Your task to perform on an android device: Clear the cart on newegg. Search for "alienware area 51" on newegg, select the first entry, add it to the cart, then select checkout. Image 0: 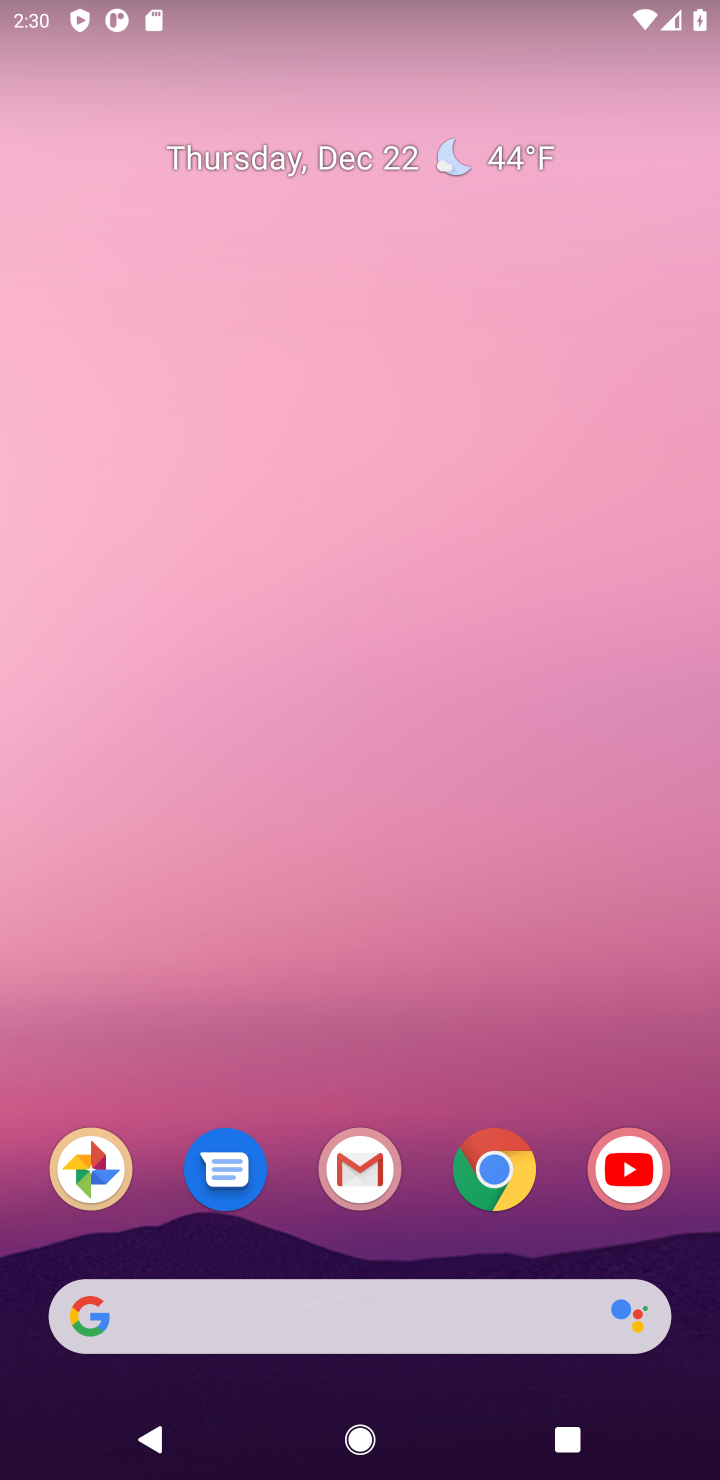
Step 0: click (488, 1175)
Your task to perform on an android device: Clear the cart on newegg. Search for "alienware area 51" on newegg, select the first entry, add it to the cart, then select checkout. Image 1: 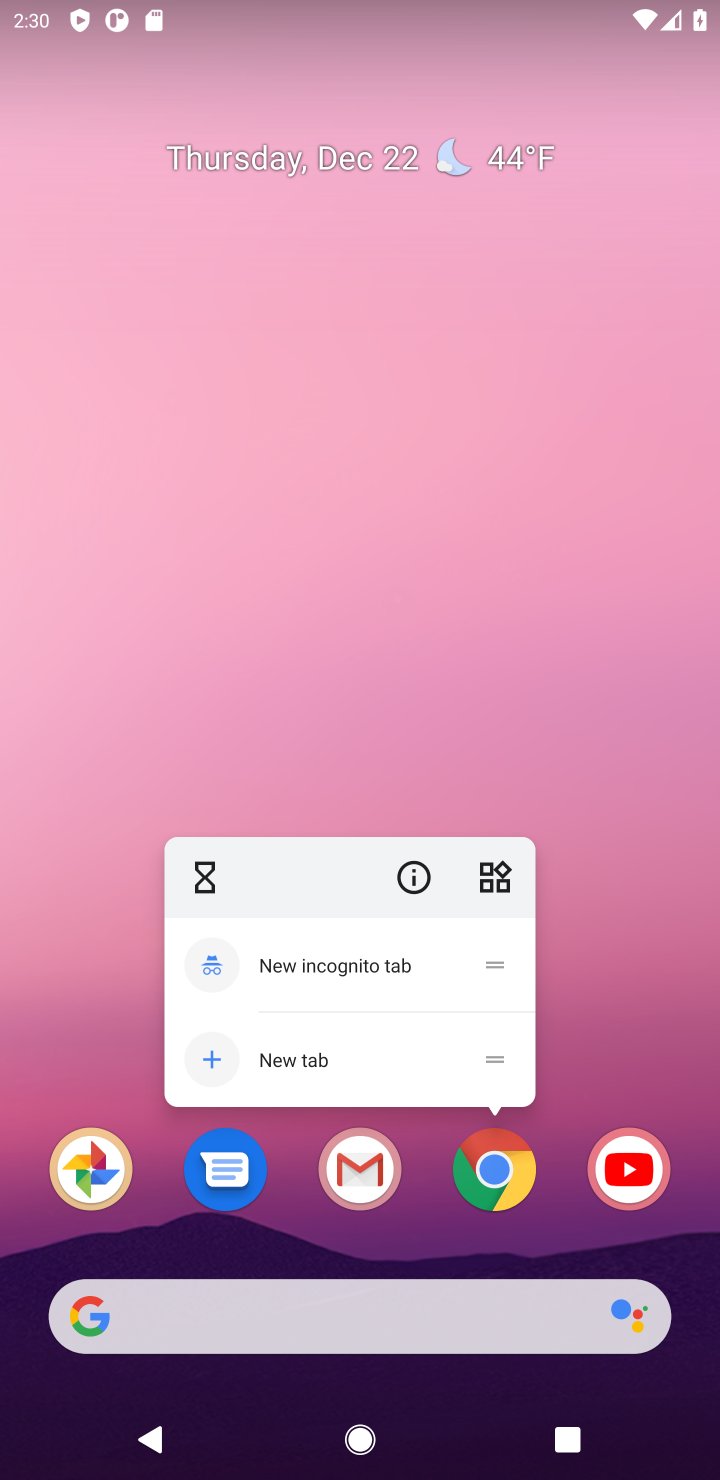
Step 1: click (488, 1175)
Your task to perform on an android device: Clear the cart on newegg. Search for "alienware area 51" on newegg, select the first entry, add it to the cart, then select checkout. Image 2: 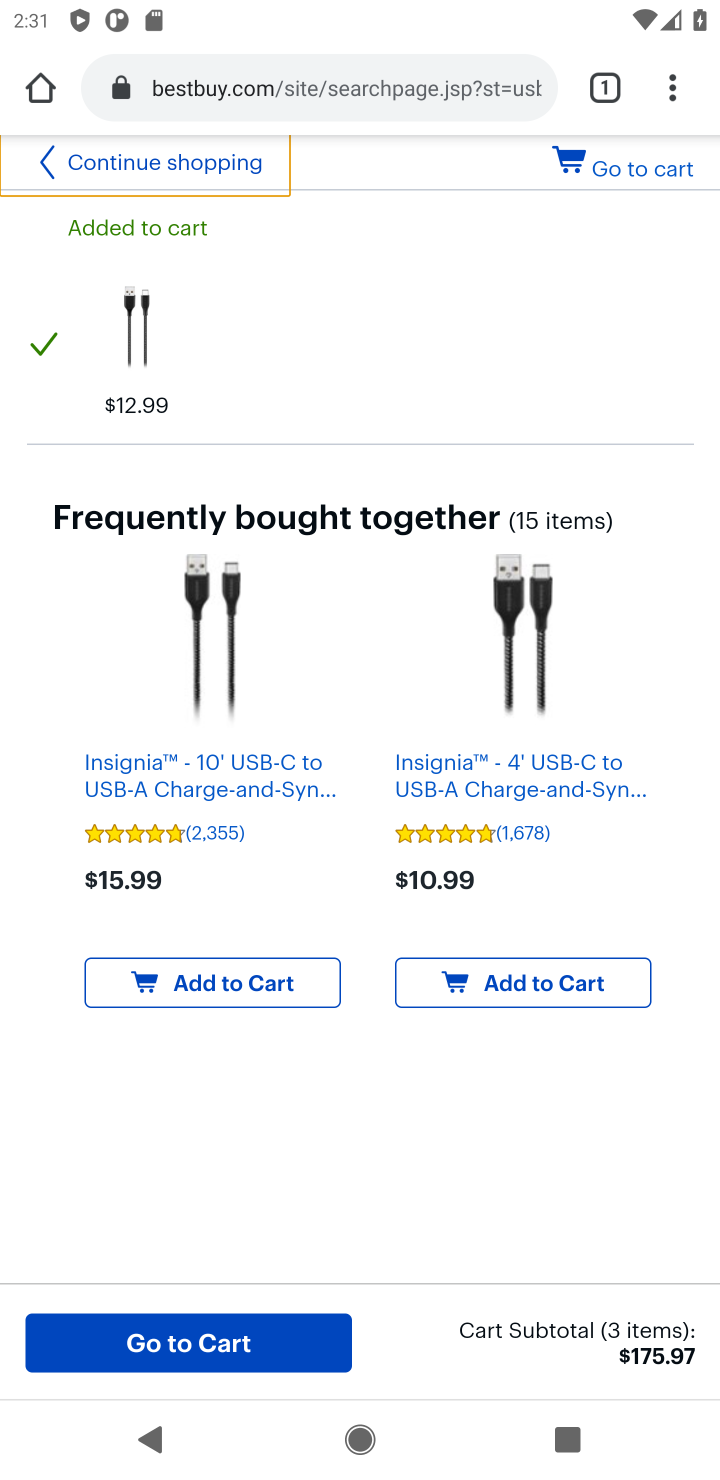
Step 2: click (294, 94)
Your task to perform on an android device: Clear the cart on newegg. Search for "alienware area 51" on newegg, select the first entry, add it to the cart, then select checkout. Image 3: 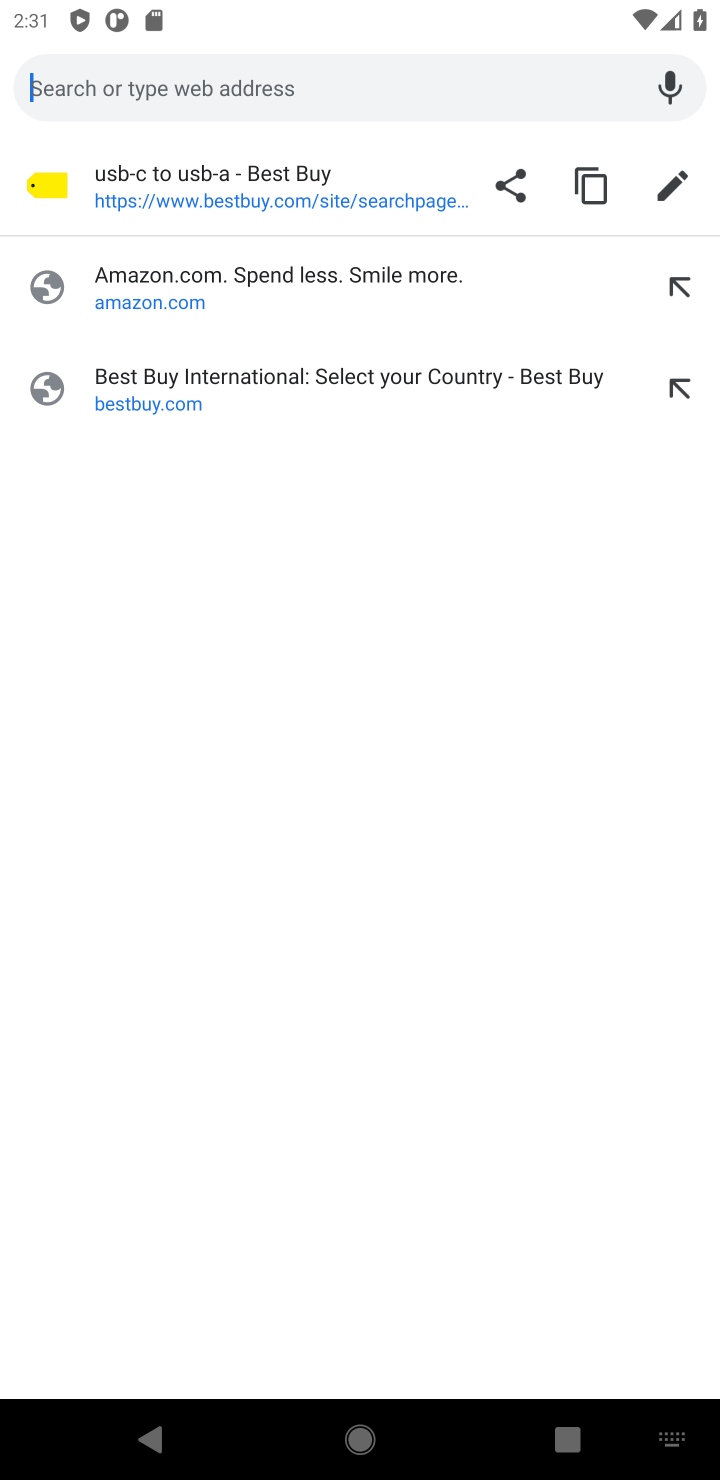
Step 3: click (116, 95)
Your task to perform on an android device: Clear the cart on newegg. Search for "alienware area 51" on newegg, select the first entry, add it to the cart, then select checkout. Image 4: 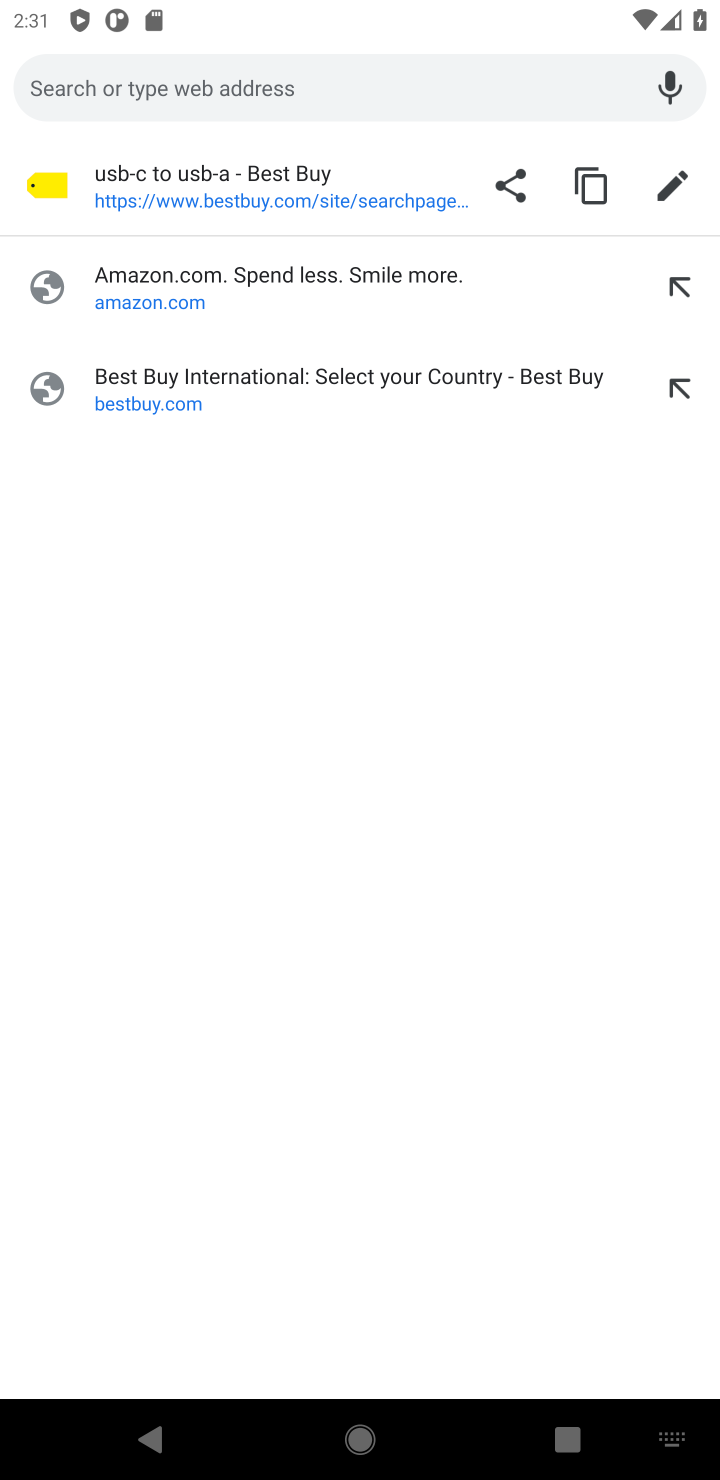
Step 4: type "newegg.com"
Your task to perform on an android device: Clear the cart on newegg. Search for "alienware area 51" on newegg, select the first entry, add it to the cart, then select checkout. Image 5: 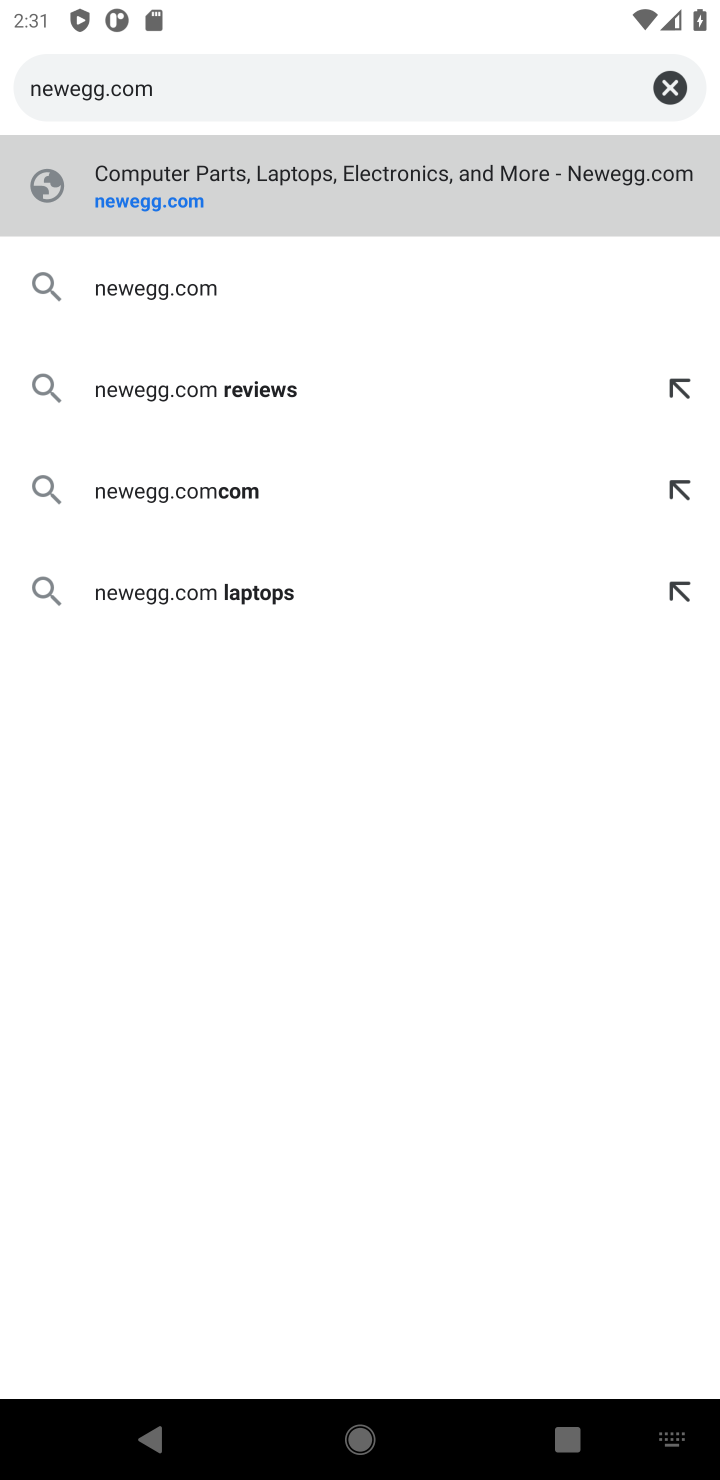
Step 5: click (137, 199)
Your task to perform on an android device: Clear the cart on newegg. Search for "alienware area 51" on newegg, select the first entry, add it to the cart, then select checkout. Image 6: 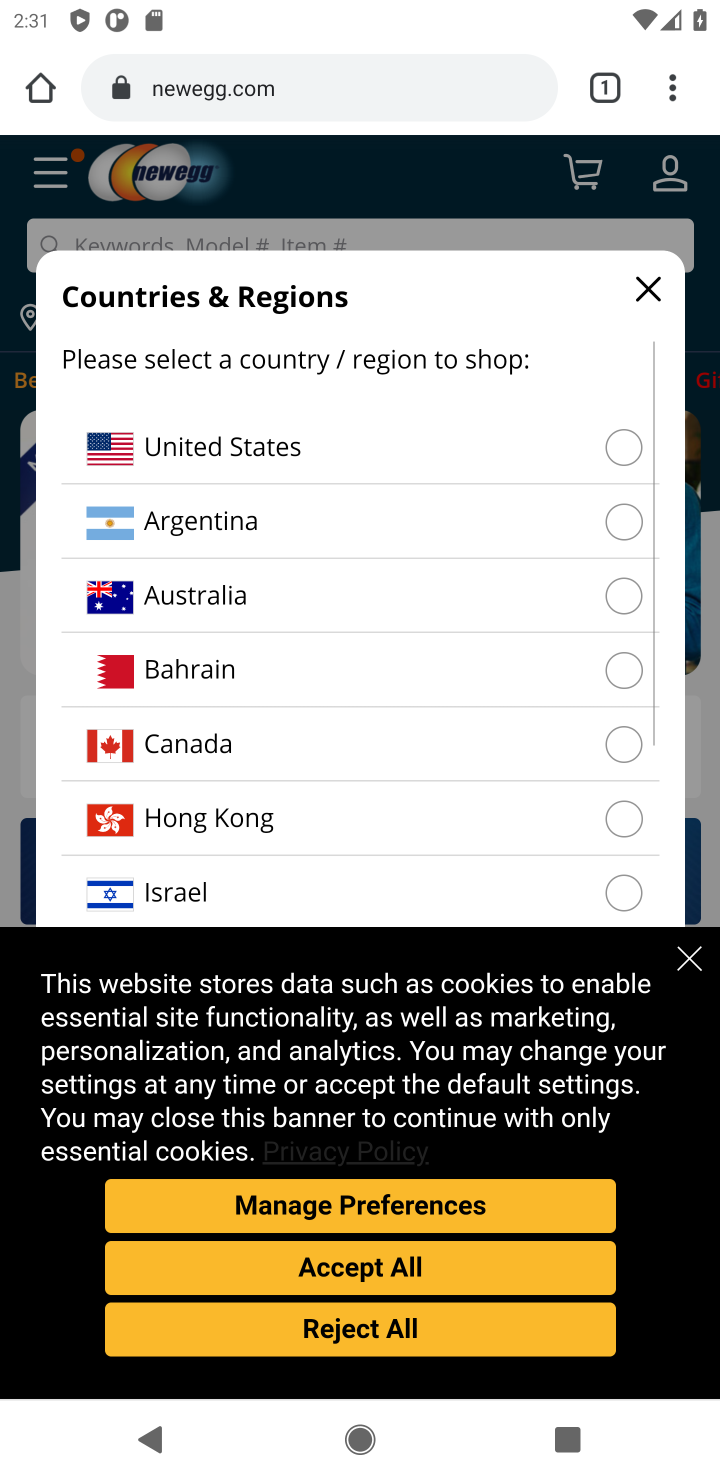
Step 6: click (685, 966)
Your task to perform on an android device: Clear the cart on newegg. Search for "alienware area 51" on newegg, select the first entry, add it to the cart, then select checkout. Image 7: 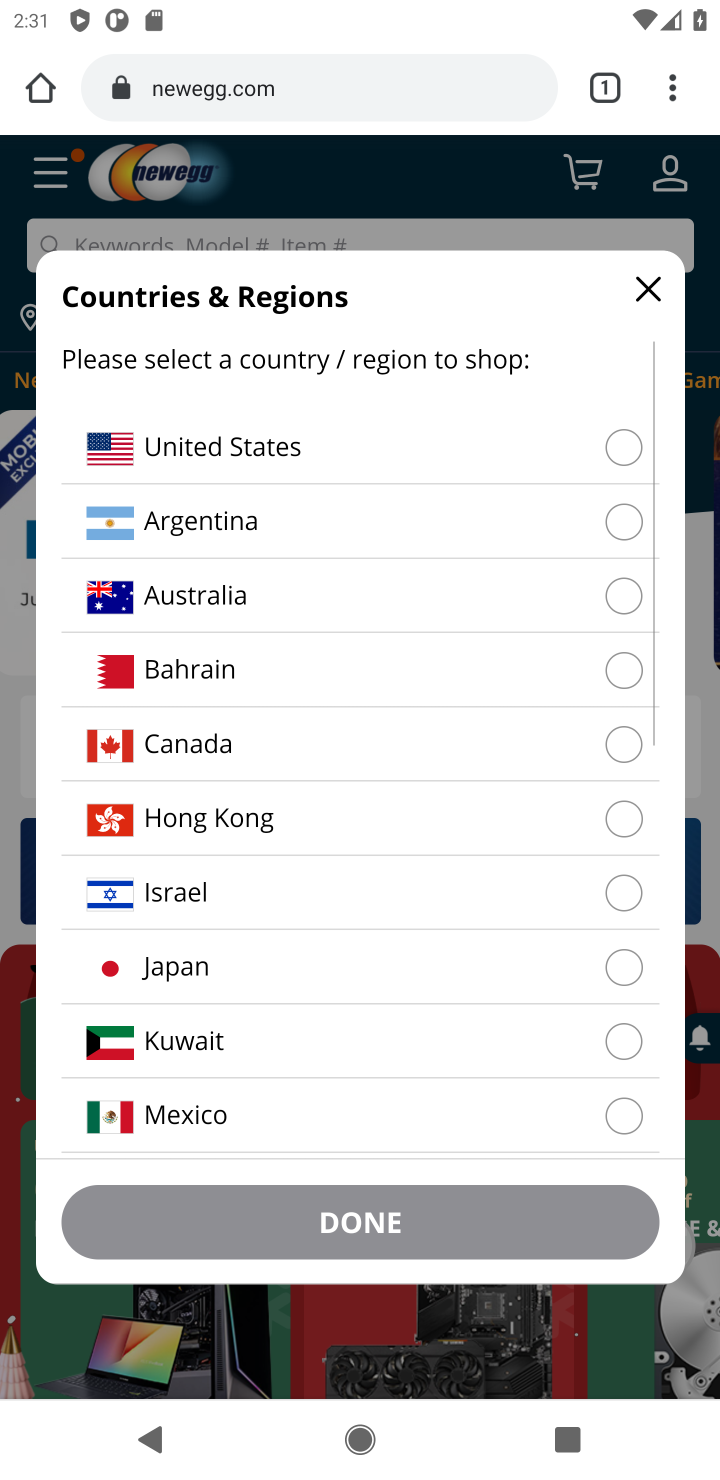
Step 7: click (106, 445)
Your task to perform on an android device: Clear the cart on newegg. Search for "alienware area 51" on newegg, select the first entry, add it to the cart, then select checkout. Image 8: 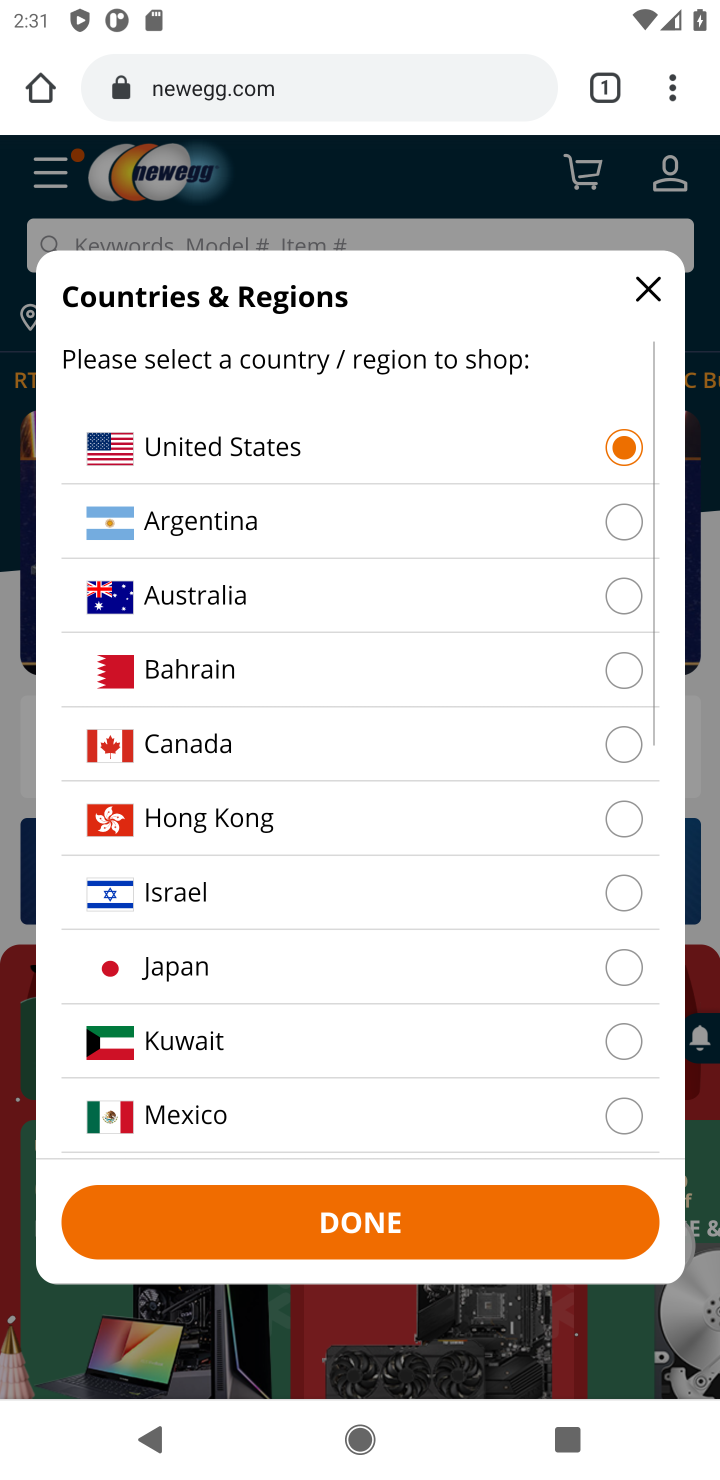
Step 8: click (343, 1227)
Your task to perform on an android device: Clear the cart on newegg. Search for "alienware area 51" on newegg, select the first entry, add it to the cart, then select checkout. Image 9: 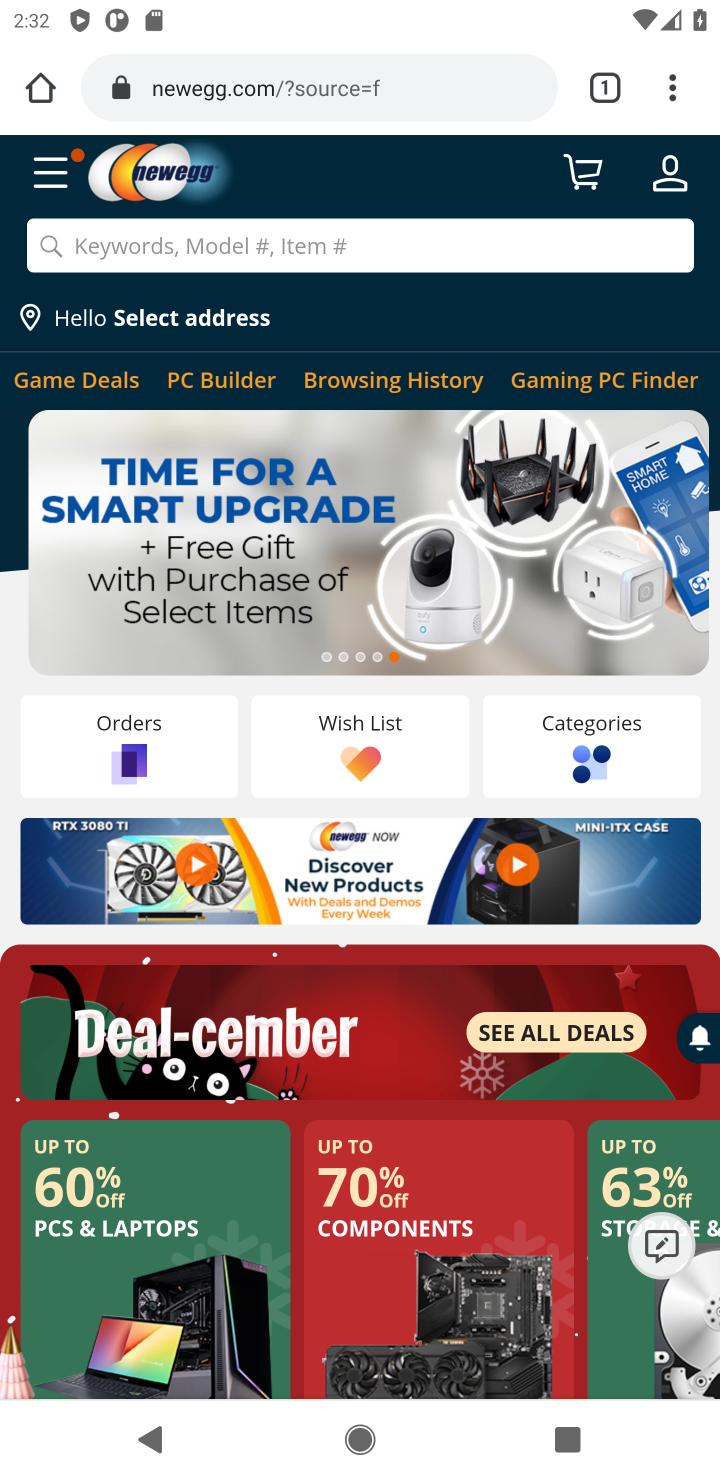
Step 9: click (577, 183)
Your task to perform on an android device: Clear the cart on newegg. Search for "alienware area 51" on newegg, select the first entry, add it to the cart, then select checkout. Image 10: 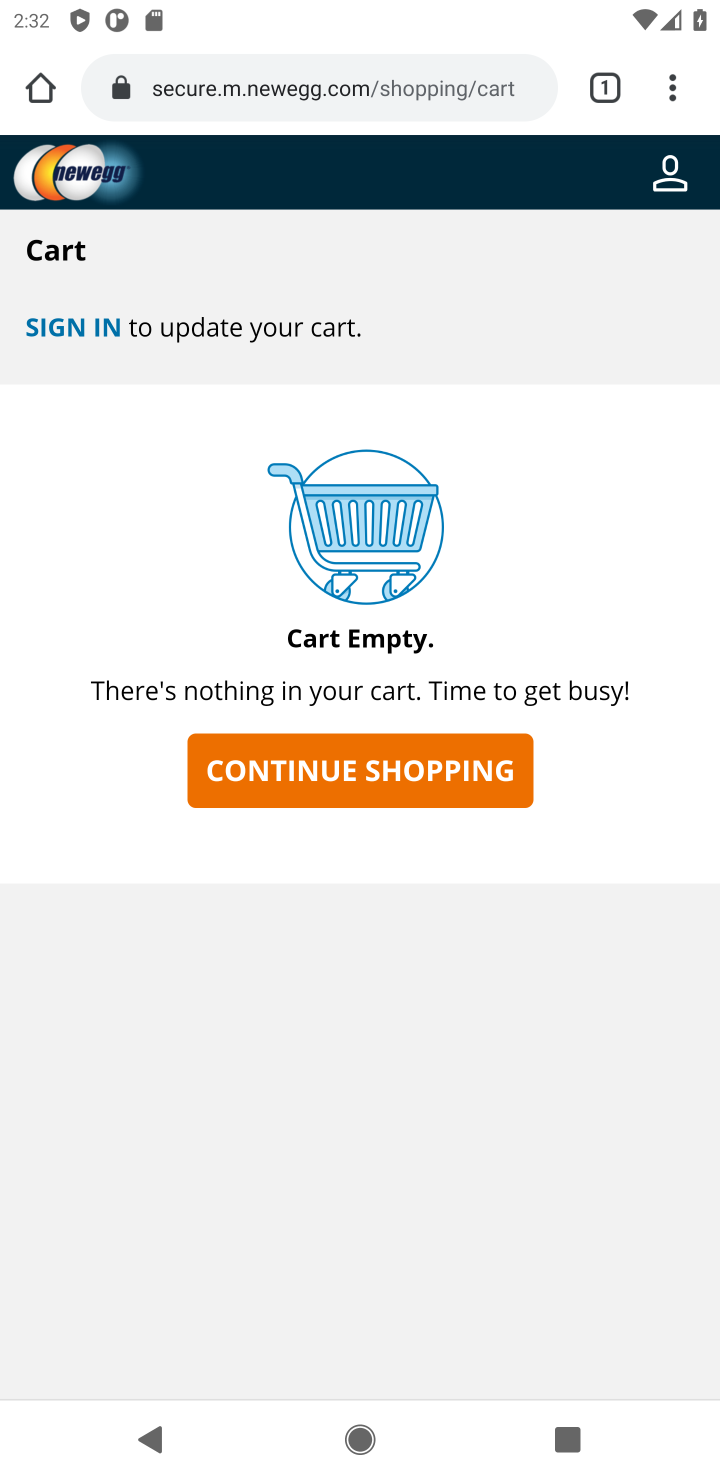
Step 10: click (288, 743)
Your task to perform on an android device: Clear the cart on newegg. Search for "alienware area 51" on newegg, select the first entry, add it to the cart, then select checkout. Image 11: 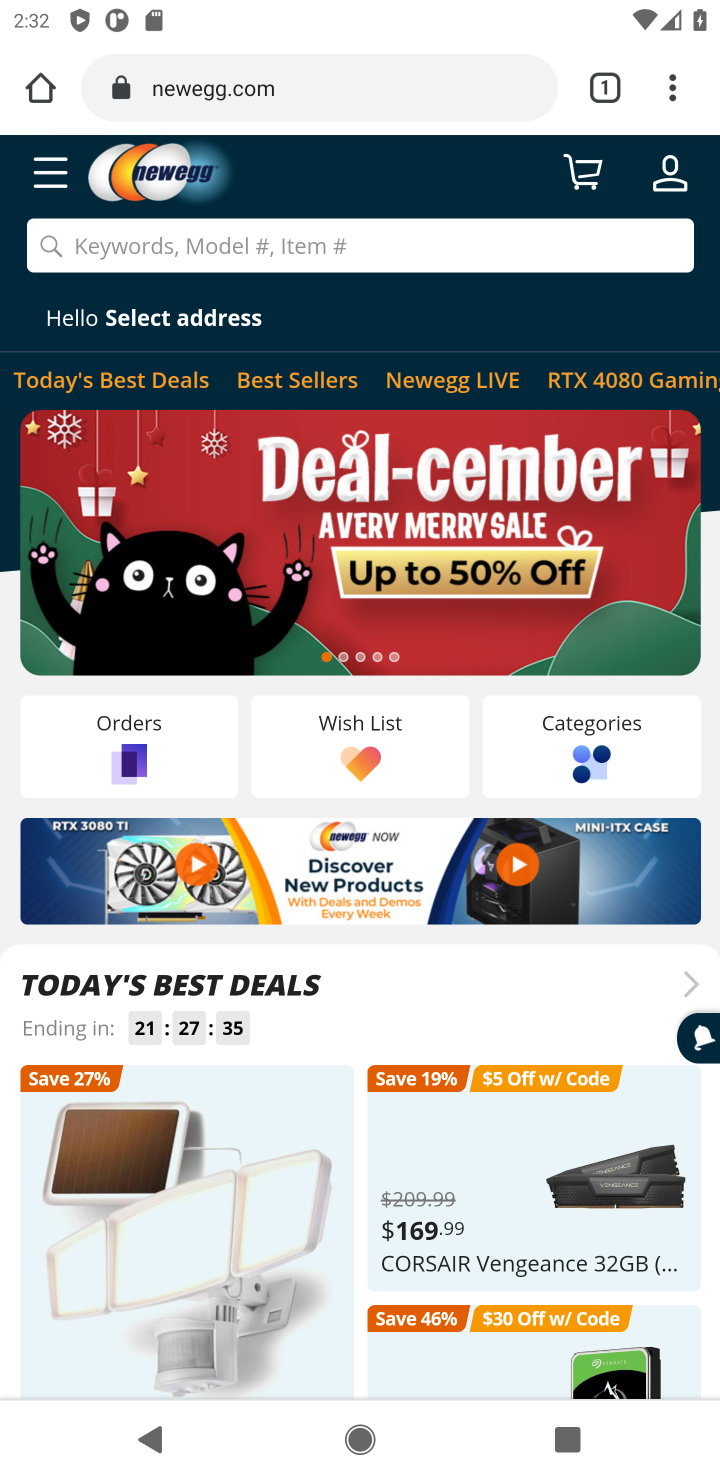
Step 11: click (124, 257)
Your task to perform on an android device: Clear the cart on newegg. Search for "alienware area 51" on newegg, select the first entry, add it to the cart, then select checkout. Image 12: 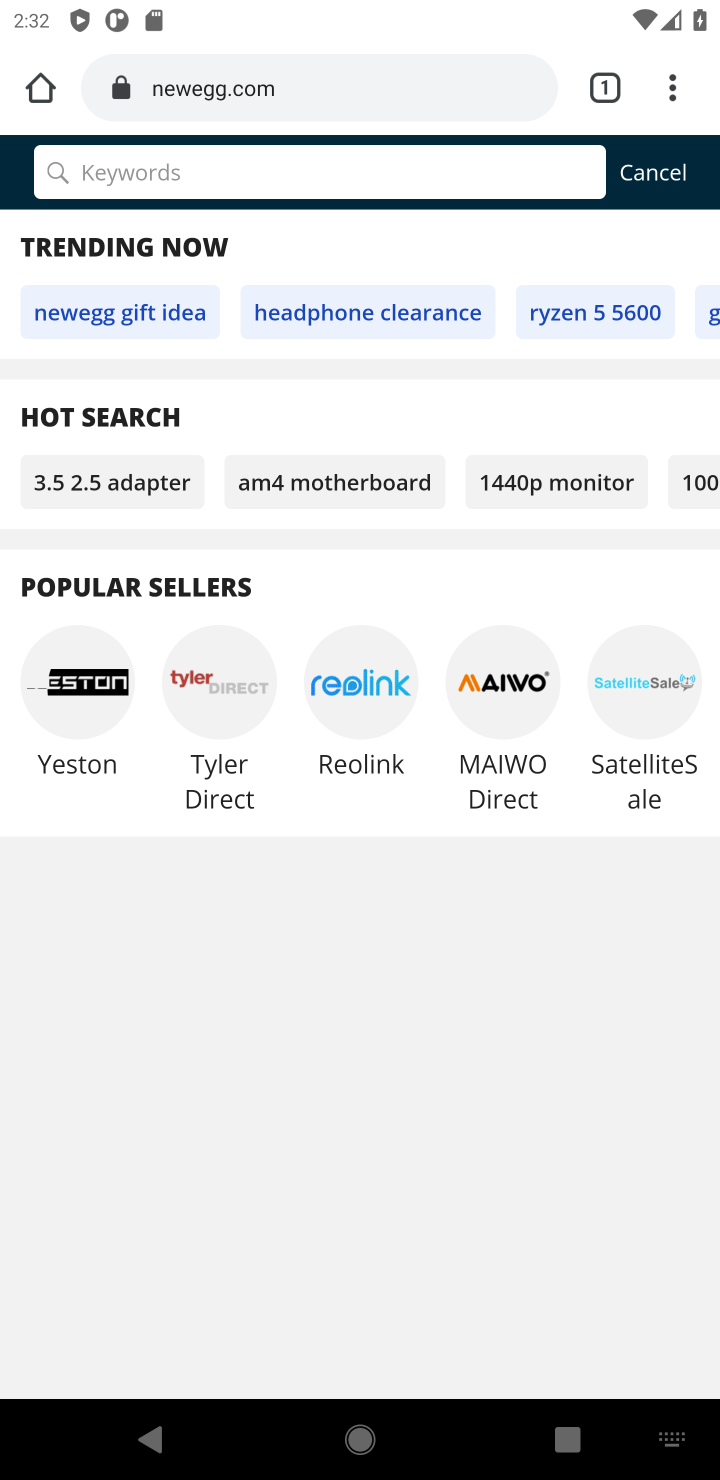
Step 12: type "alienware area 51"
Your task to perform on an android device: Clear the cart on newegg. Search for "alienware area 51" on newegg, select the first entry, add it to the cart, then select checkout. Image 13: 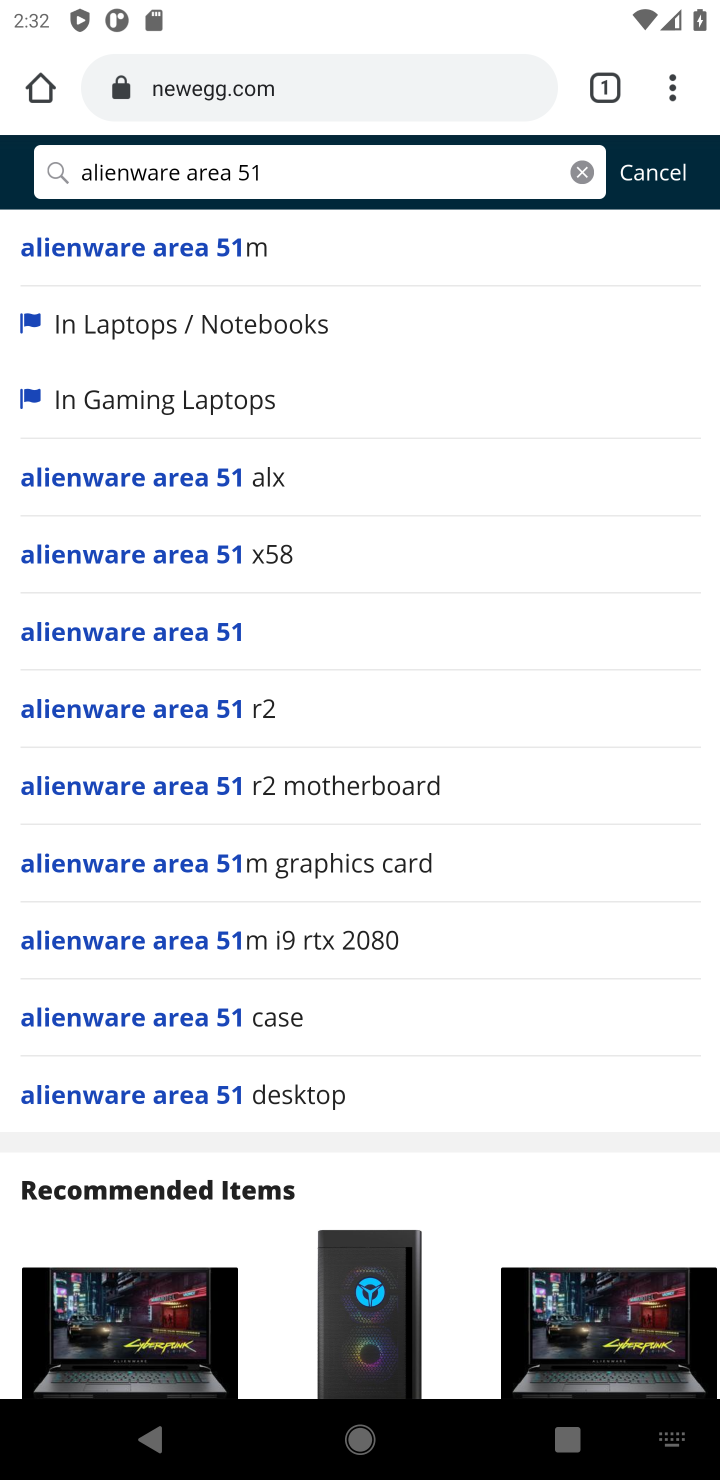
Step 13: click (128, 643)
Your task to perform on an android device: Clear the cart on newegg. Search for "alienware area 51" on newegg, select the first entry, add it to the cart, then select checkout. Image 14: 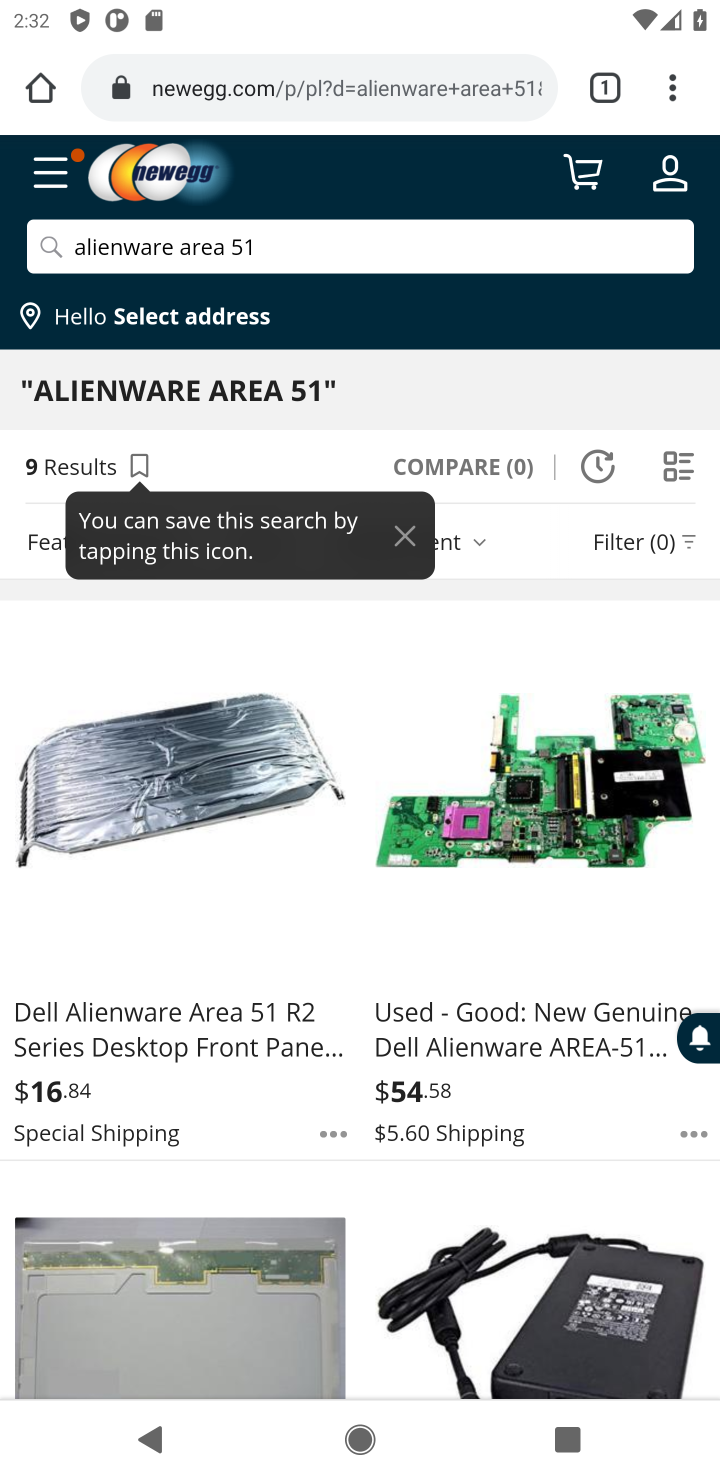
Step 14: click (132, 1035)
Your task to perform on an android device: Clear the cart on newegg. Search for "alienware area 51" on newegg, select the first entry, add it to the cart, then select checkout. Image 15: 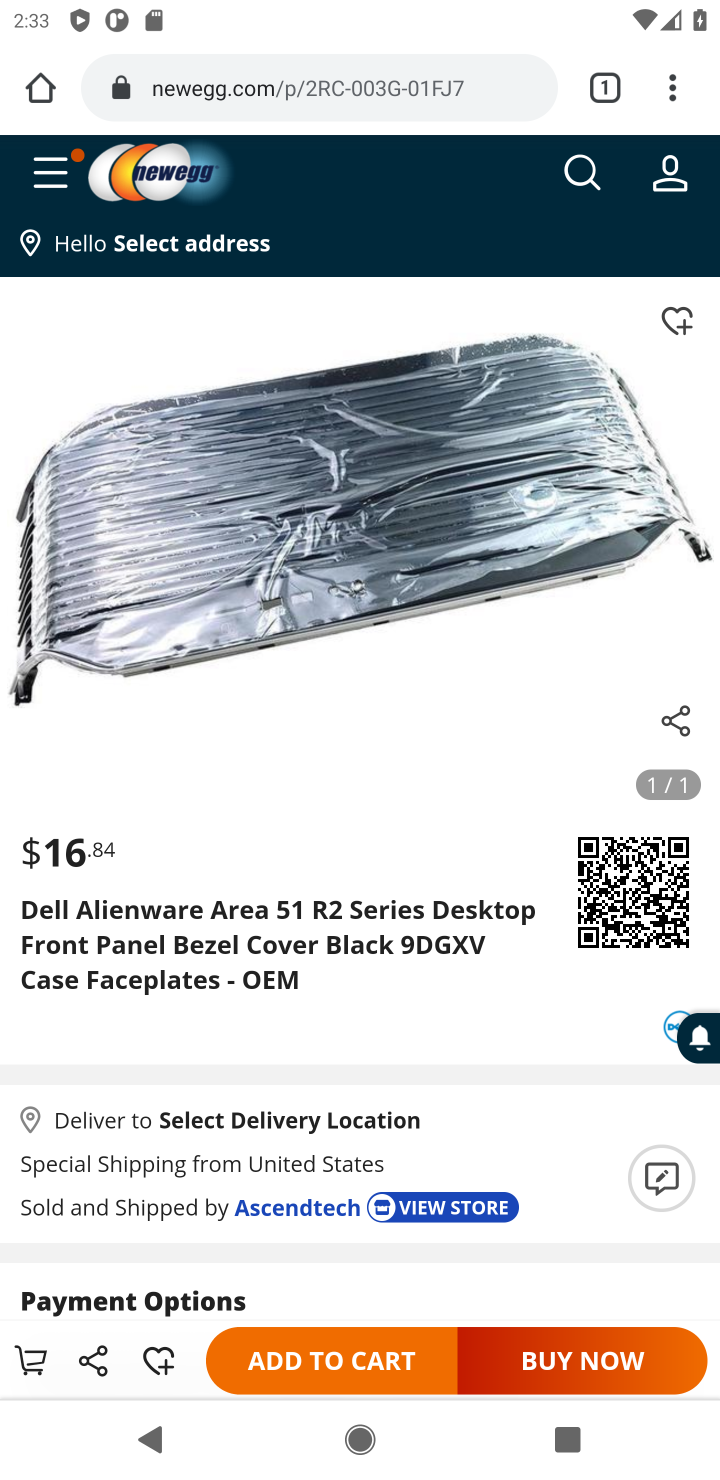
Step 15: click (330, 1367)
Your task to perform on an android device: Clear the cart on newegg. Search for "alienware area 51" on newegg, select the first entry, add it to the cart, then select checkout. Image 16: 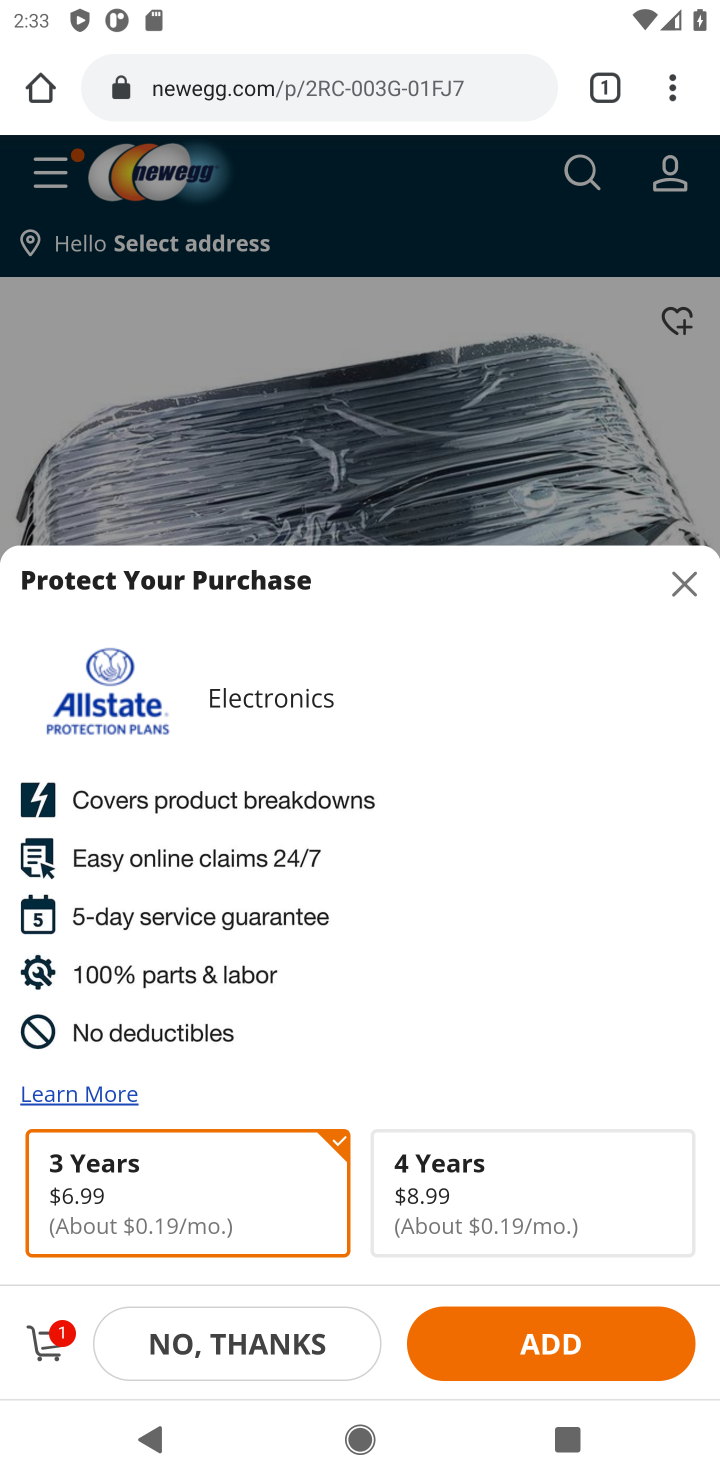
Step 16: click (57, 1335)
Your task to perform on an android device: Clear the cart on newegg. Search for "alienware area 51" on newegg, select the first entry, add it to the cart, then select checkout. Image 17: 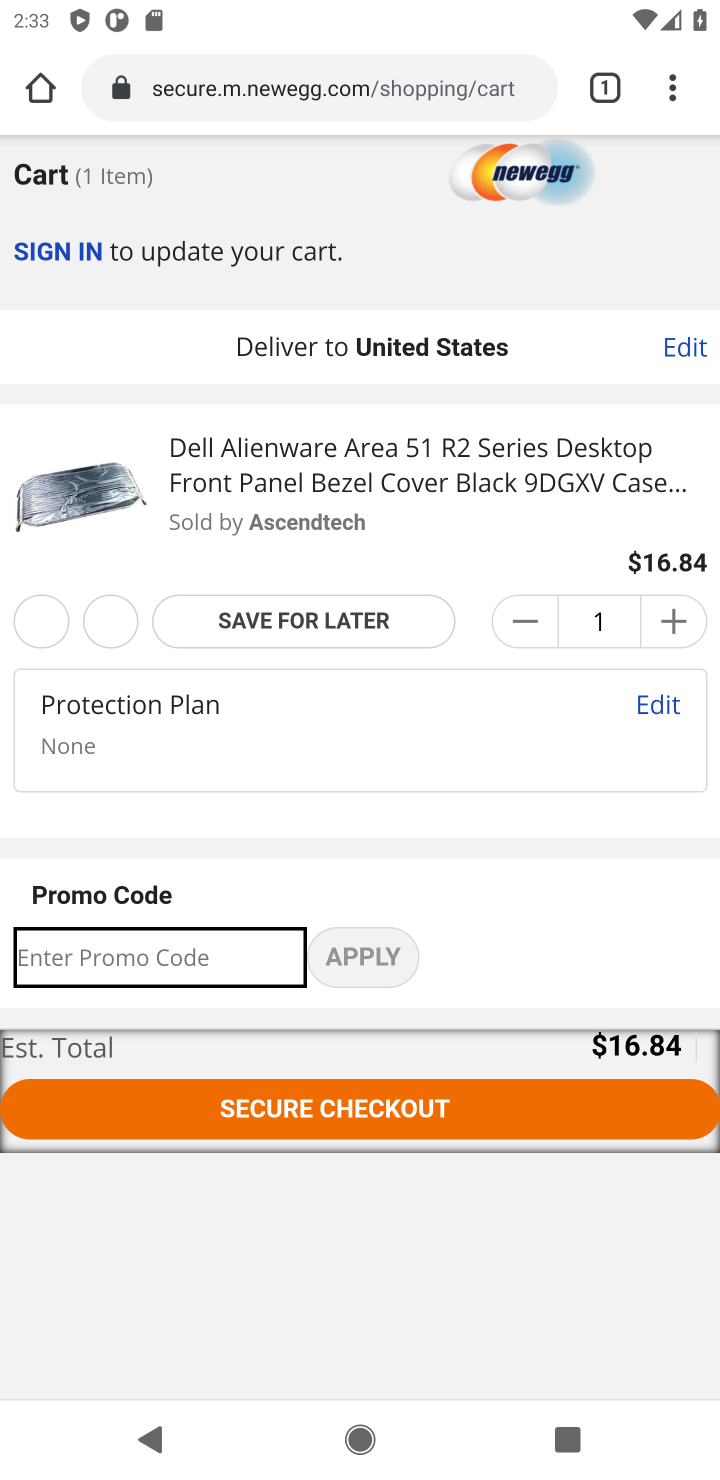
Step 17: click (331, 1117)
Your task to perform on an android device: Clear the cart on newegg. Search for "alienware area 51" on newegg, select the first entry, add it to the cart, then select checkout. Image 18: 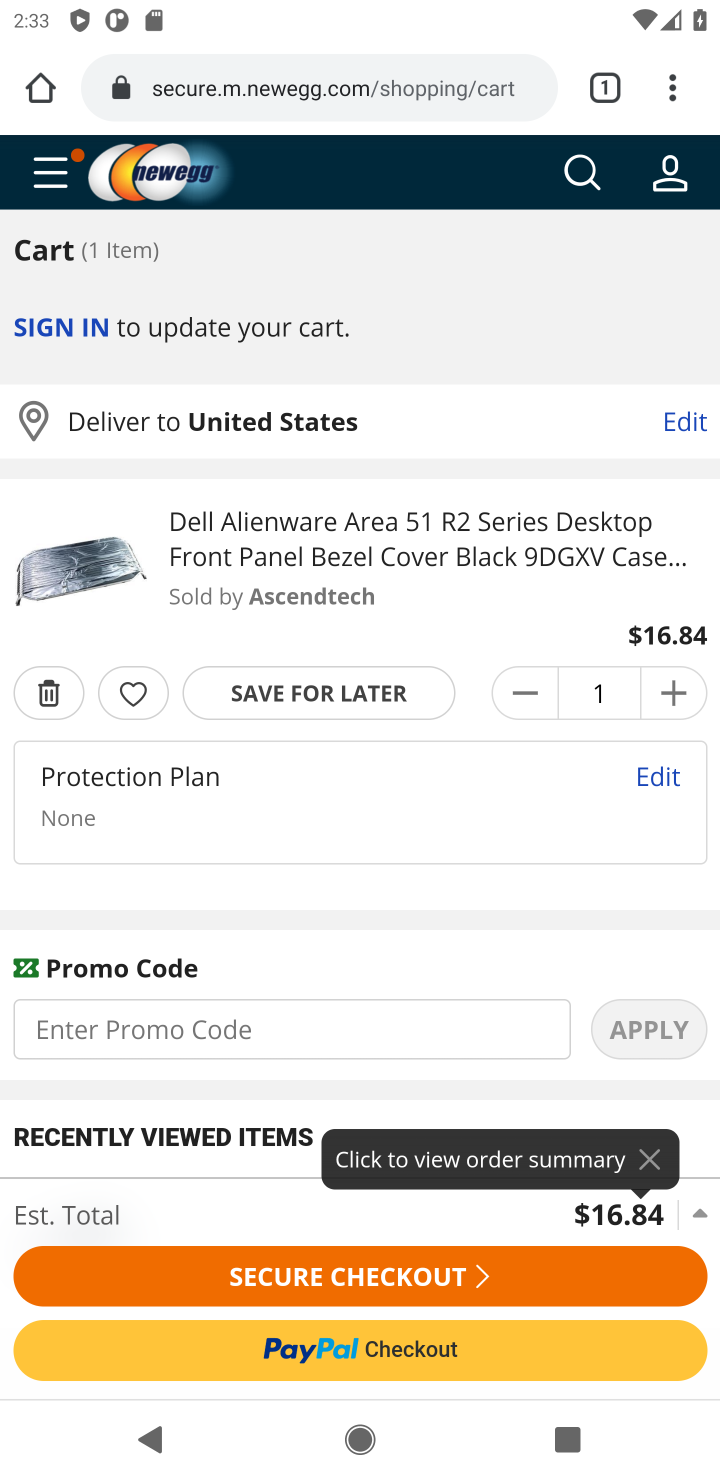
Step 18: click (358, 1198)
Your task to perform on an android device: Clear the cart on newegg. Search for "alienware area 51" on newegg, select the first entry, add it to the cart, then select checkout. Image 19: 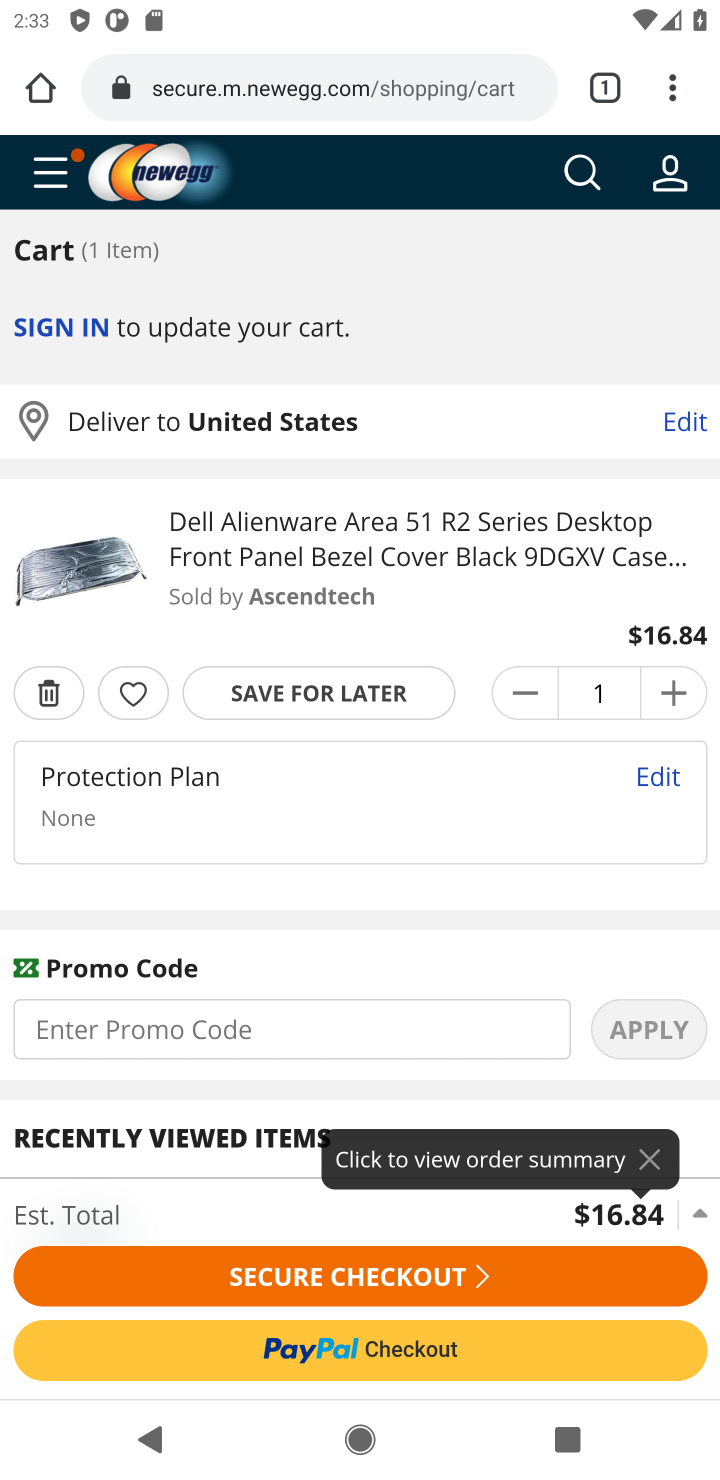
Step 19: click (373, 1280)
Your task to perform on an android device: Clear the cart on newegg. Search for "alienware area 51" on newegg, select the first entry, add it to the cart, then select checkout. Image 20: 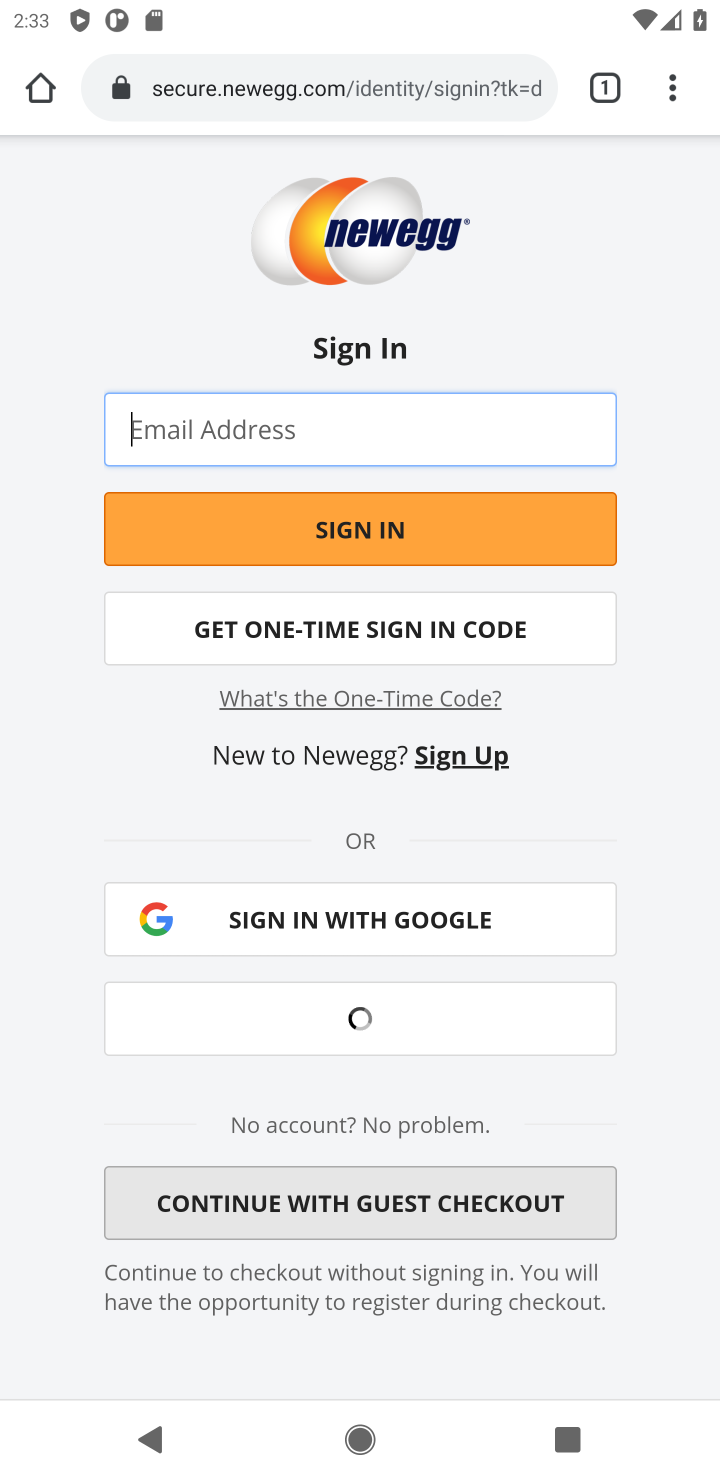
Step 20: task complete